Your task to perform on an android device: Toggle the flashlight Image 0: 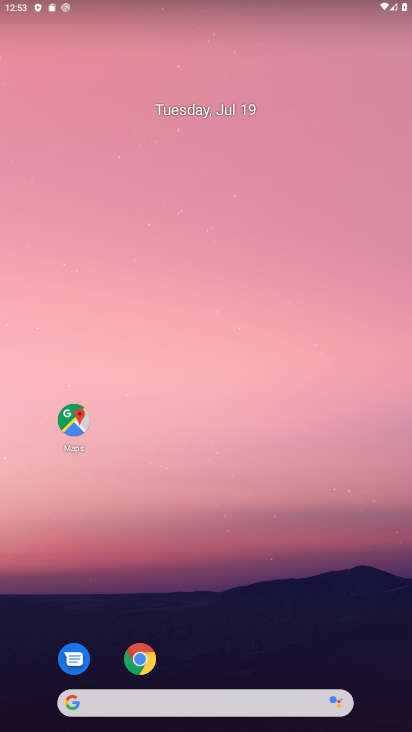
Step 0: press home button
Your task to perform on an android device: Toggle the flashlight Image 1: 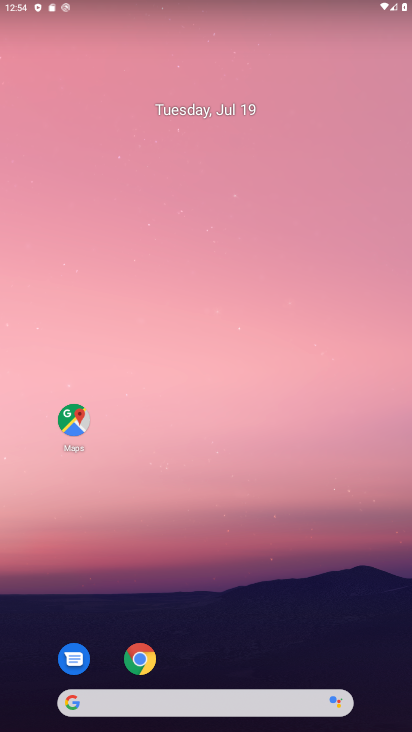
Step 1: task complete